Your task to perform on an android device: turn on wifi Image 0: 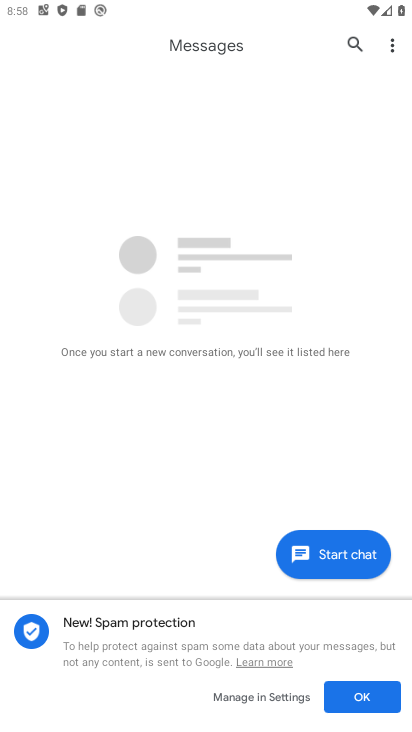
Step 0: drag from (186, 617) to (157, 285)
Your task to perform on an android device: turn on wifi Image 1: 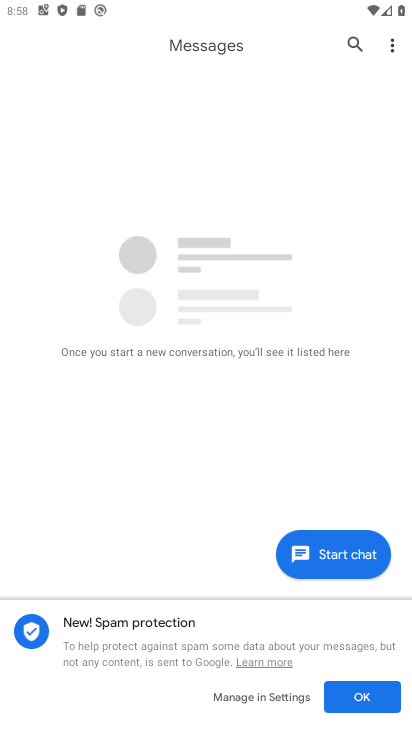
Step 1: press home button
Your task to perform on an android device: turn on wifi Image 2: 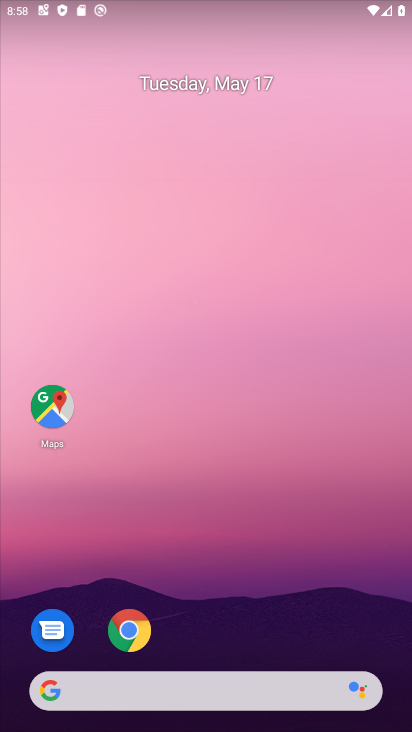
Step 2: drag from (188, 614) to (96, 159)
Your task to perform on an android device: turn on wifi Image 3: 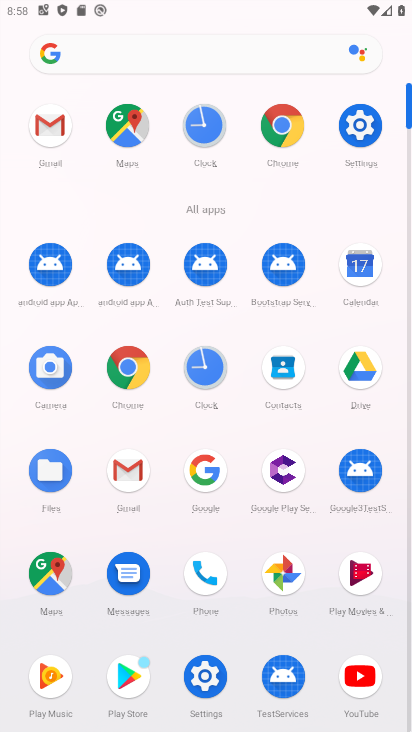
Step 3: click (353, 122)
Your task to perform on an android device: turn on wifi Image 4: 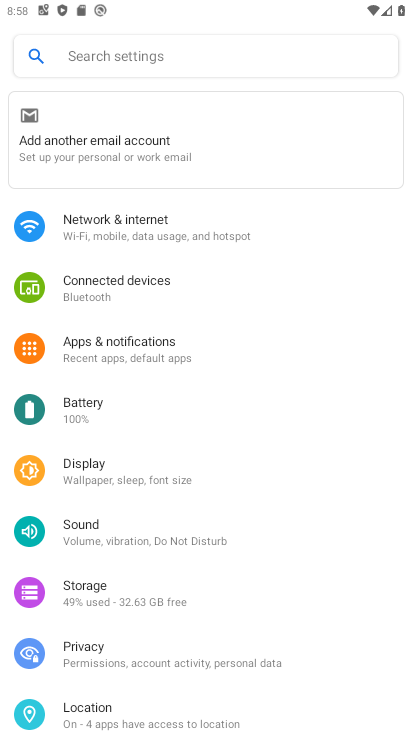
Step 4: click (128, 229)
Your task to perform on an android device: turn on wifi Image 5: 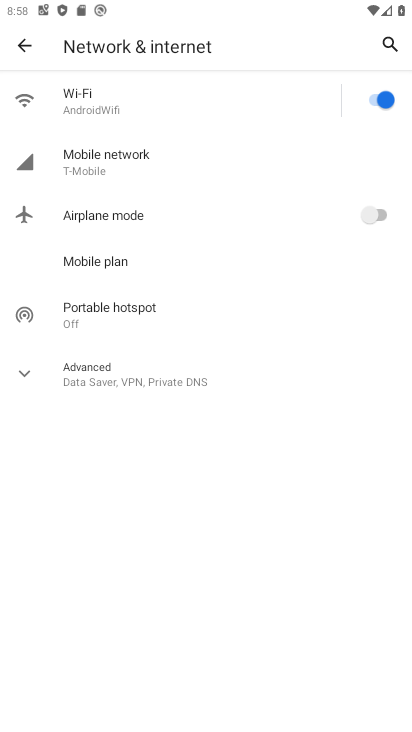
Step 5: task complete